Your task to perform on an android device: Search for amazon basics triple a on bestbuy, select the first entry, add it to the cart, then select checkout. Image 0: 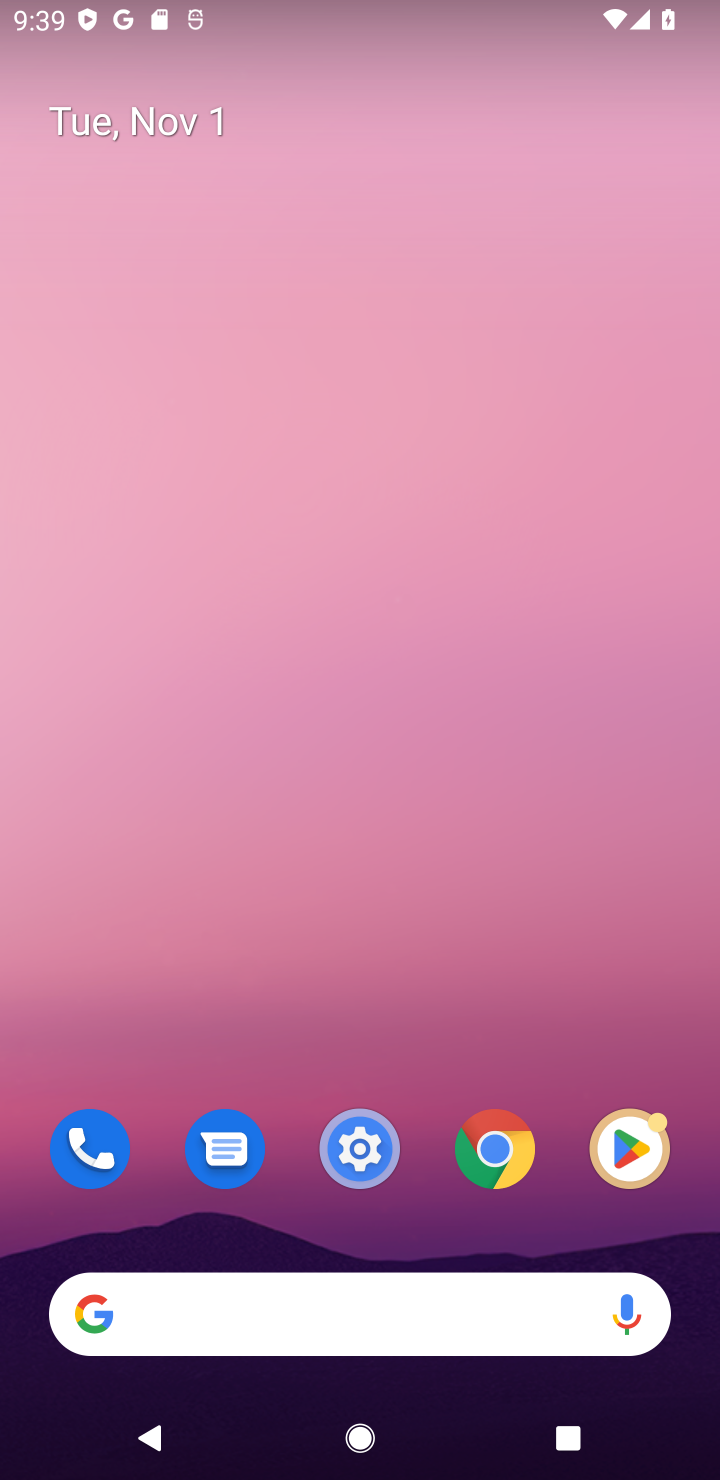
Step 0: press home button
Your task to perform on an android device: Search for amazon basics triple a on bestbuy, select the first entry, add it to the cart, then select checkout. Image 1: 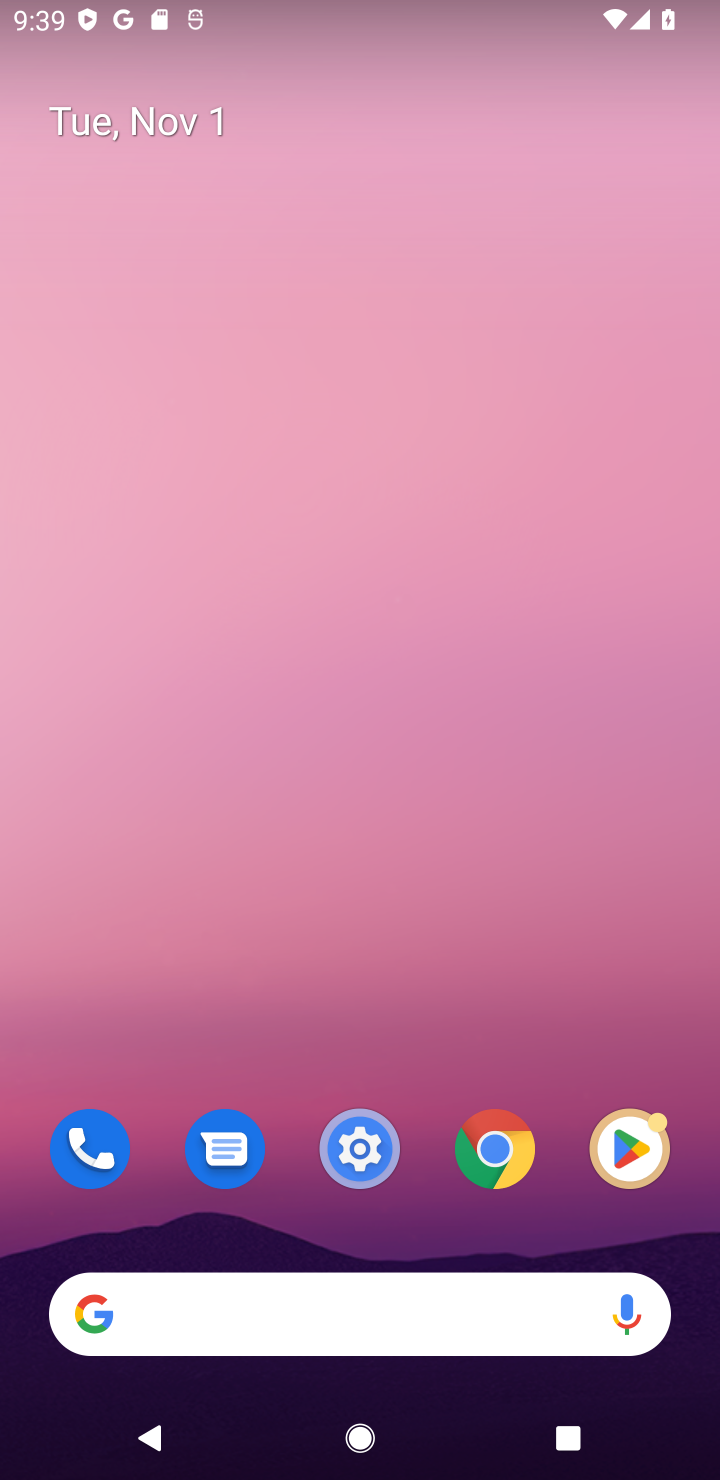
Step 1: click (140, 1310)
Your task to perform on an android device: Search for amazon basics triple a on bestbuy, select the first entry, add it to the cart, then select checkout. Image 2: 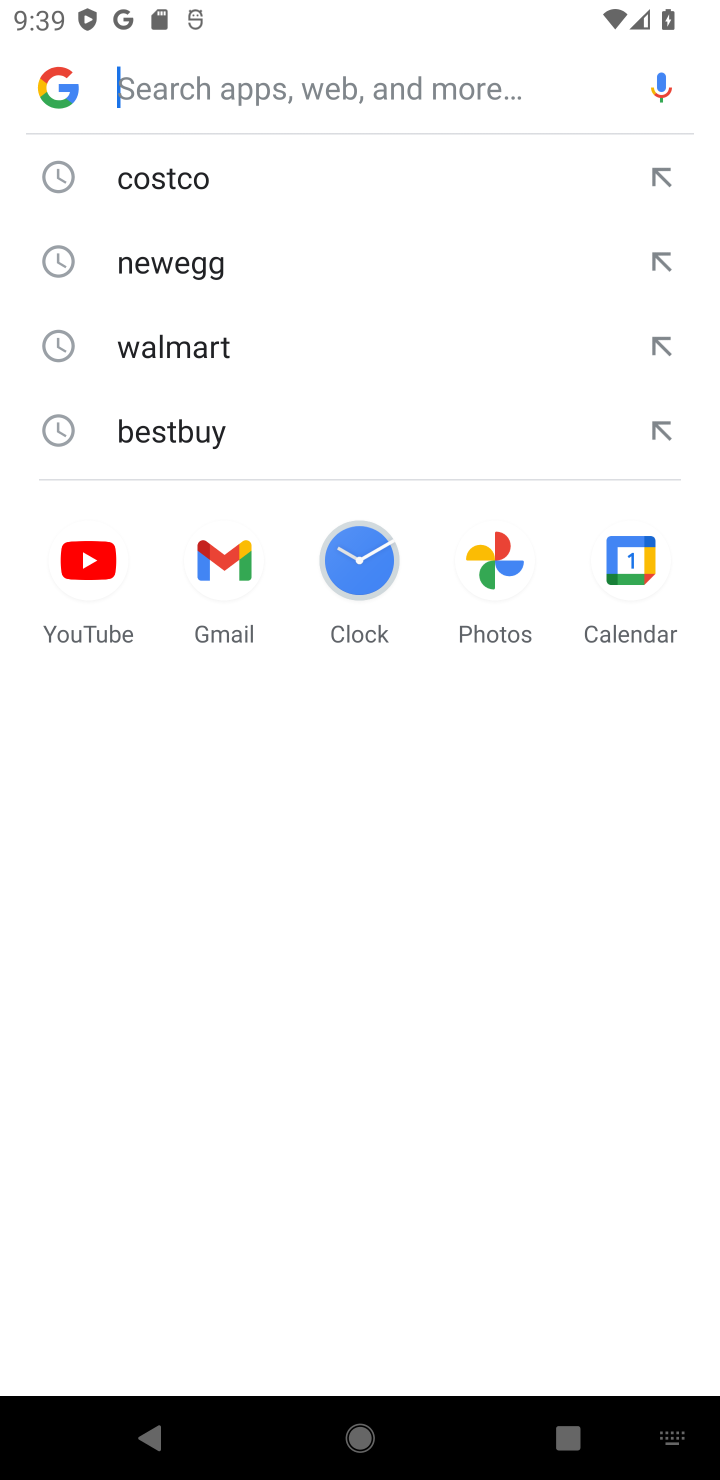
Step 2: type "bestbuy"
Your task to perform on an android device: Search for amazon basics triple a on bestbuy, select the first entry, add it to the cart, then select checkout. Image 3: 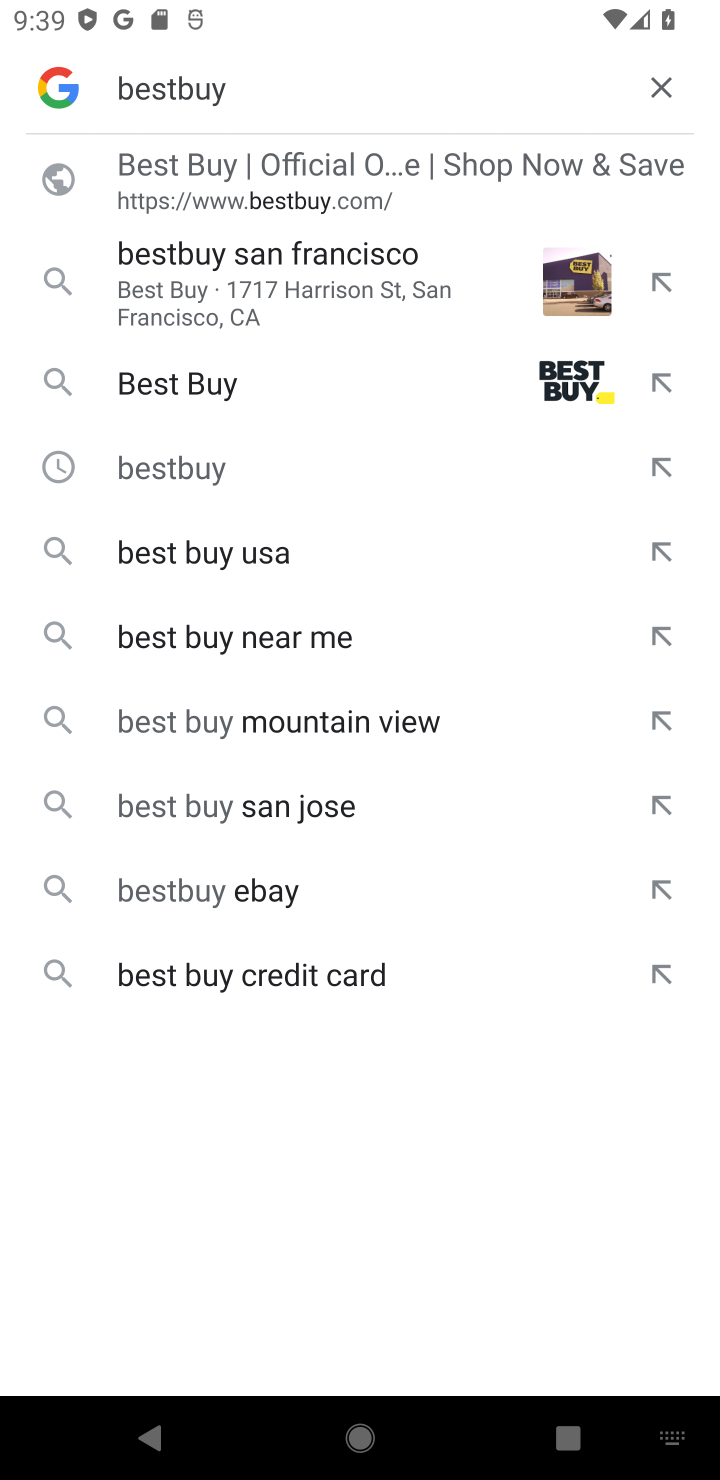
Step 3: press enter
Your task to perform on an android device: Search for amazon basics triple a on bestbuy, select the first entry, add it to the cart, then select checkout. Image 4: 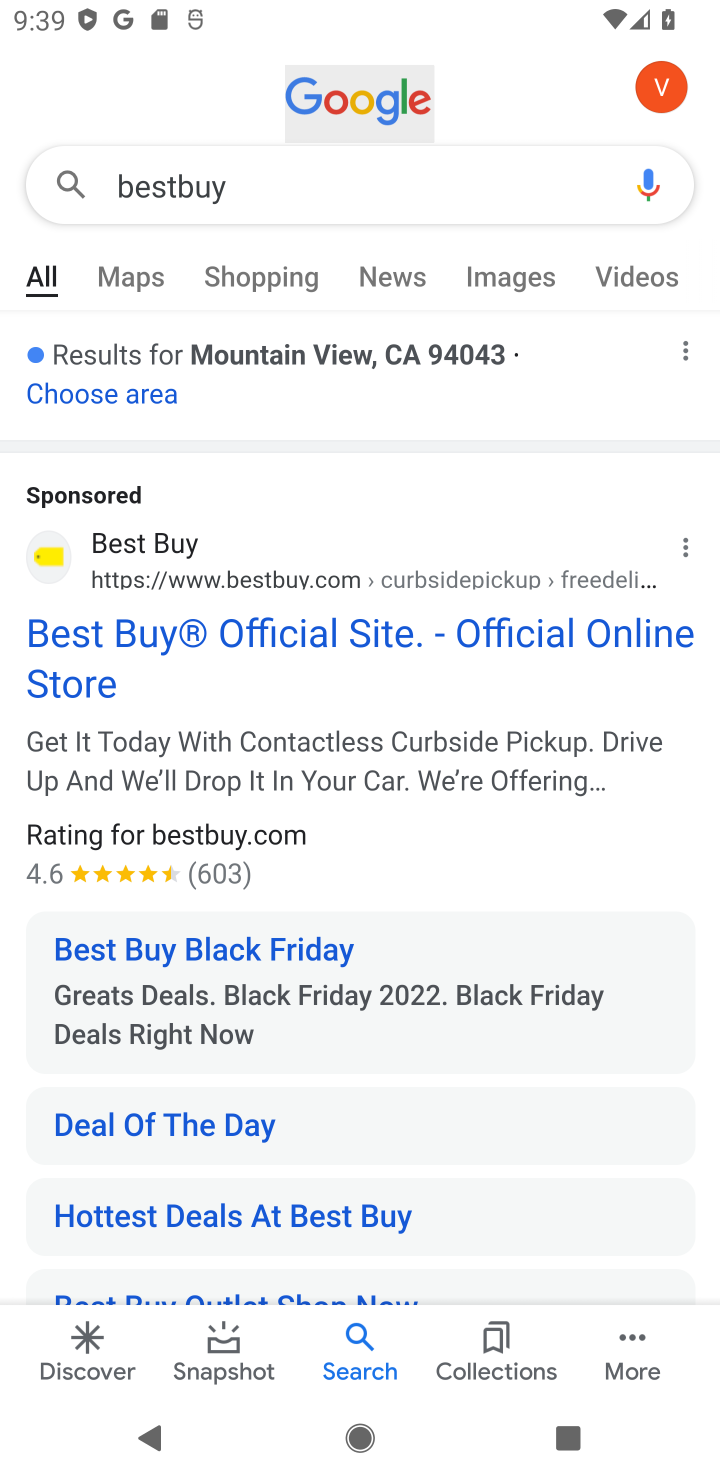
Step 4: click (184, 631)
Your task to perform on an android device: Search for amazon basics triple a on bestbuy, select the first entry, add it to the cart, then select checkout. Image 5: 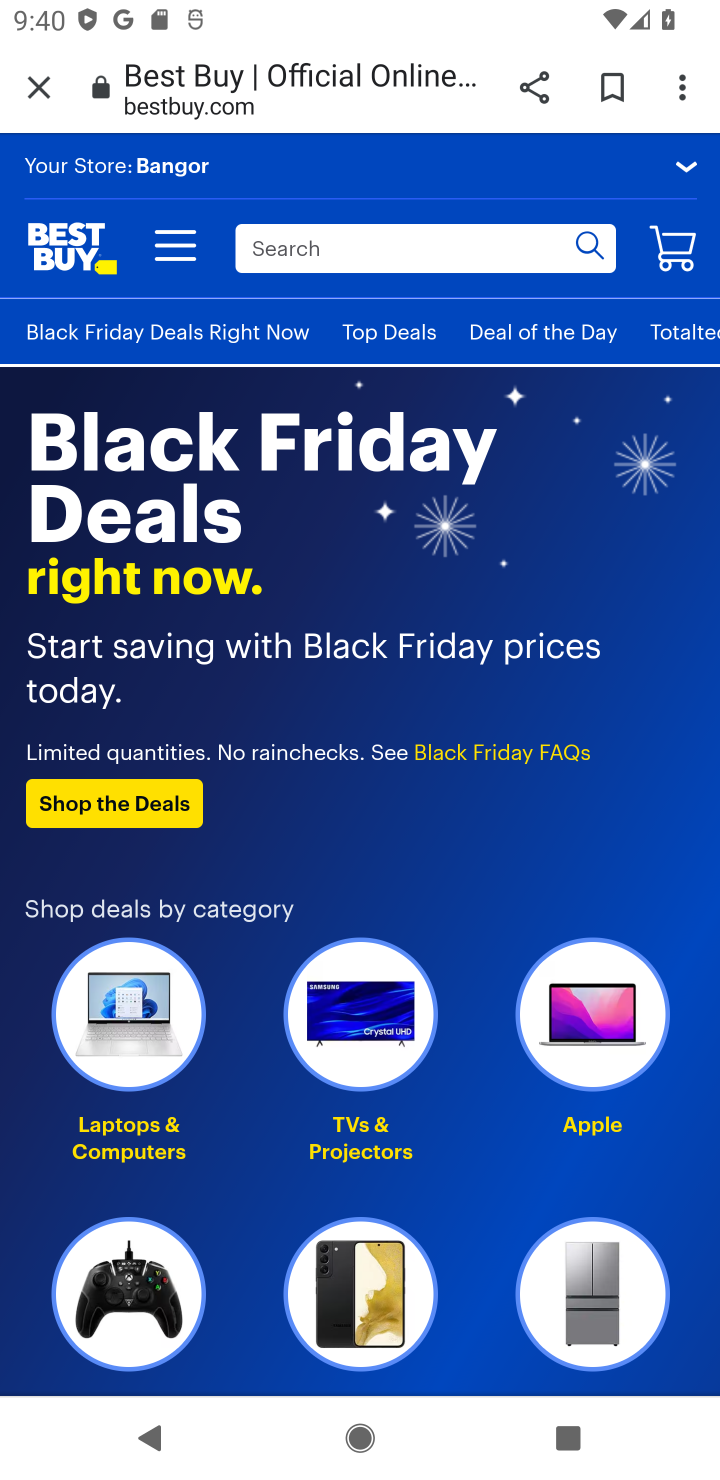
Step 5: click (290, 242)
Your task to perform on an android device: Search for amazon basics triple a on bestbuy, select the first entry, add it to the cart, then select checkout. Image 6: 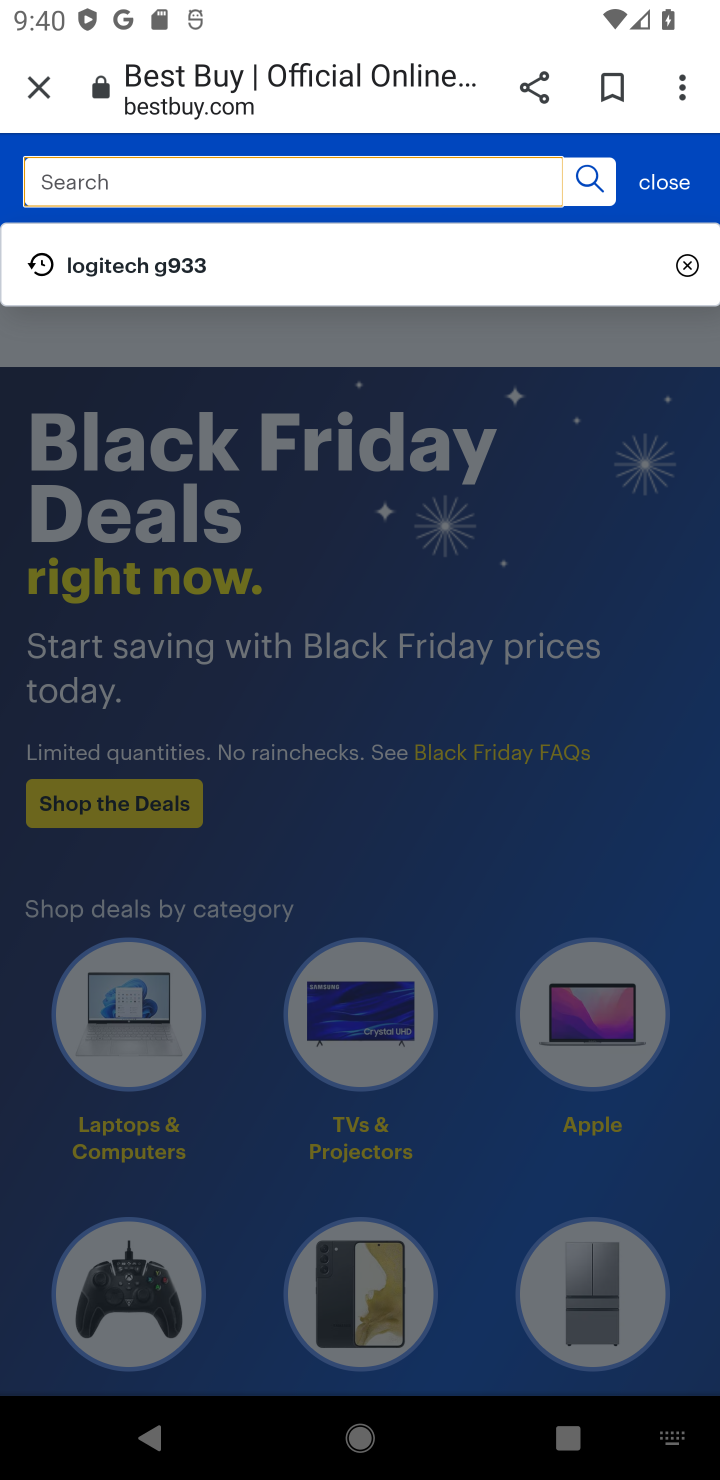
Step 6: type "amazon basics triple a"
Your task to perform on an android device: Search for amazon basics triple a on bestbuy, select the first entry, add it to the cart, then select checkout. Image 7: 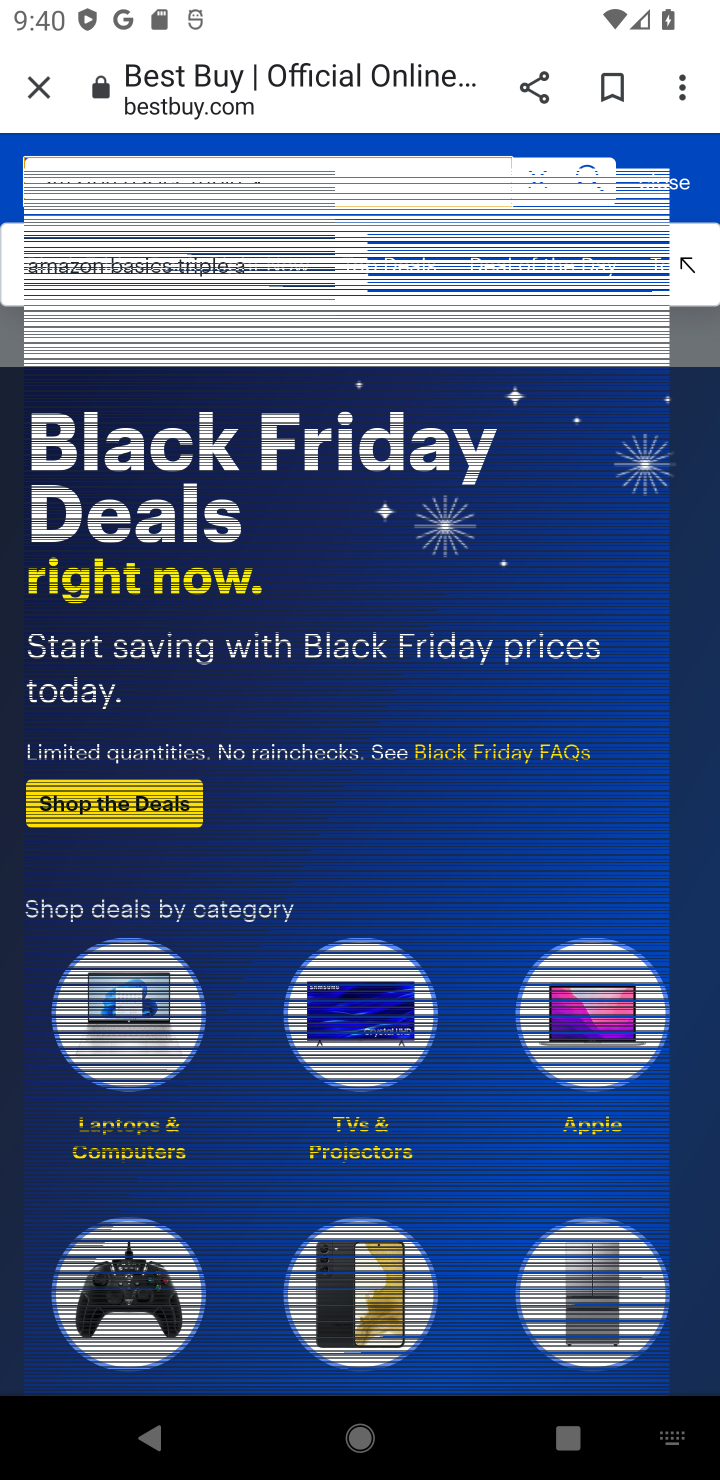
Step 7: press enter
Your task to perform on an android device: Search for amazon basics triple a on bestbuy, select the first entry, add it to the cart, then select checkout. Image 8: 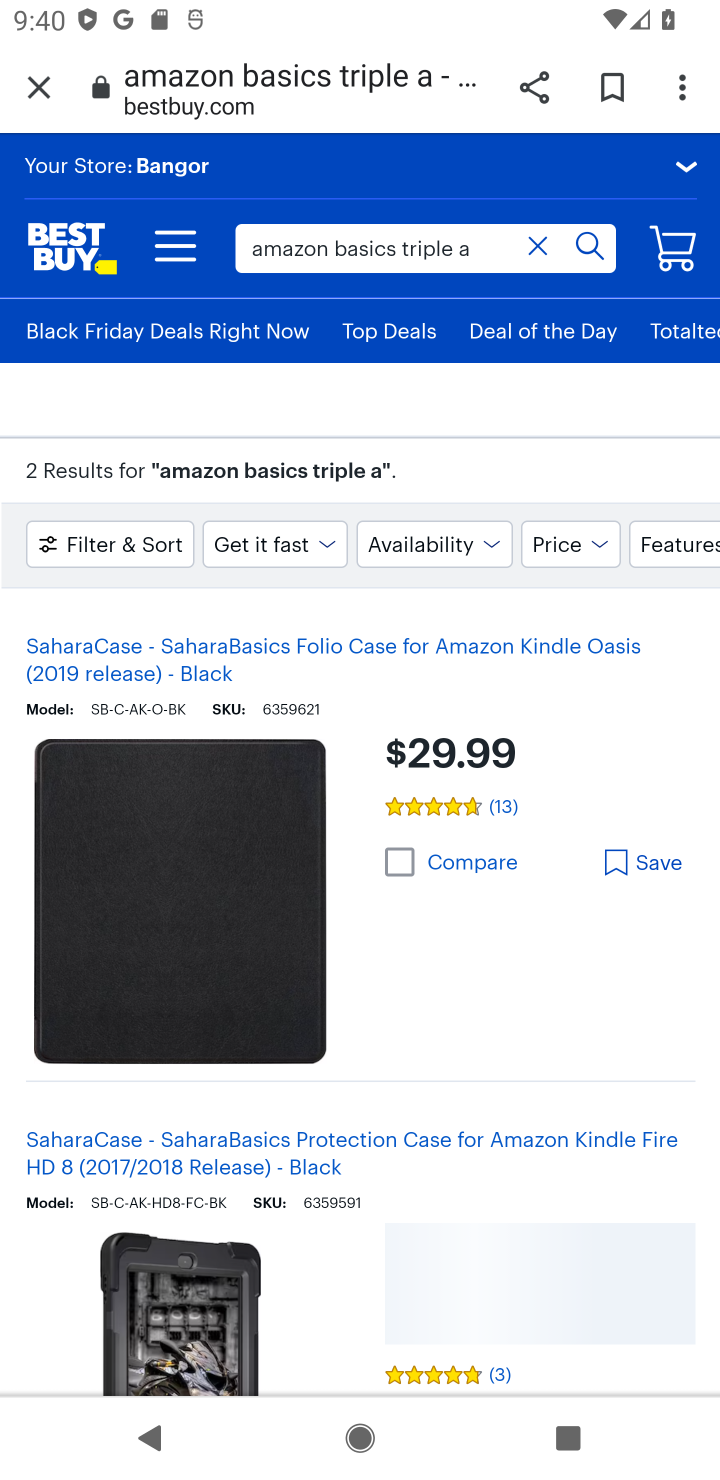
Step 8: task complete